Your task to perform on an android device: Search for seafood restaurants on Google Maps Image 0: 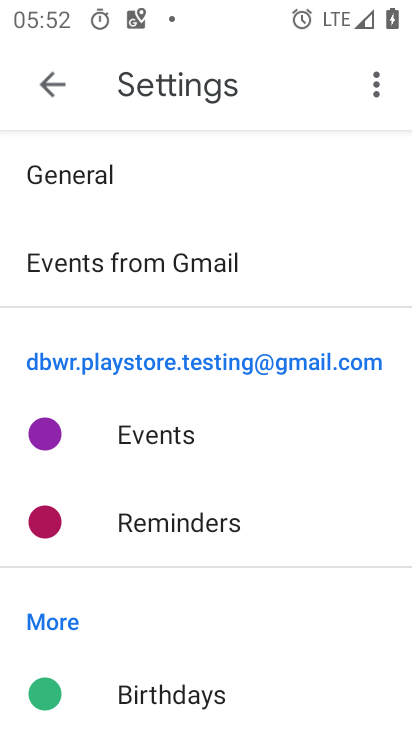
Step 0: press home button
Your task to perform on an android device: Search for seafood restaurants on Google Maps Image 1: 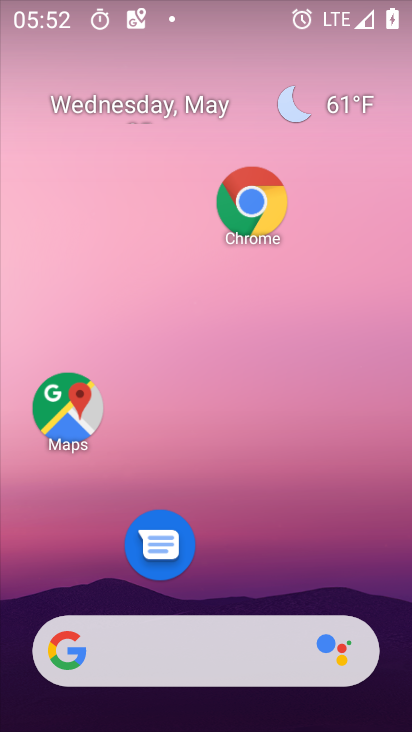
Step 1: click (80, 419)
Your task to perform on an android device: Search for seafood restaurants on Google Maps Image 2: 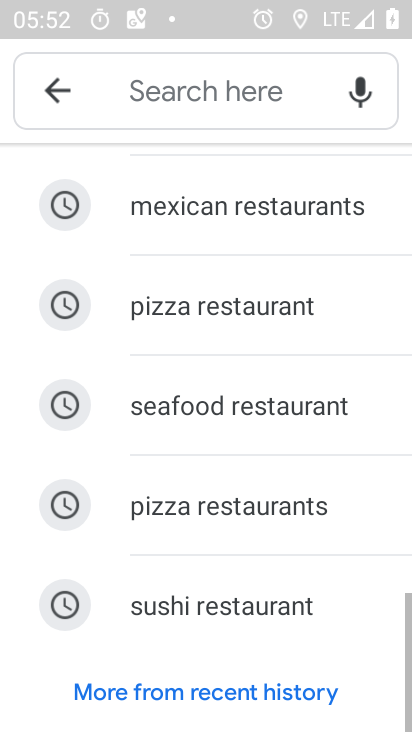
Step 2: click (147, 90)
Your task to perform on an android device: Search for seafood restaurants on Google Maps Image 3: 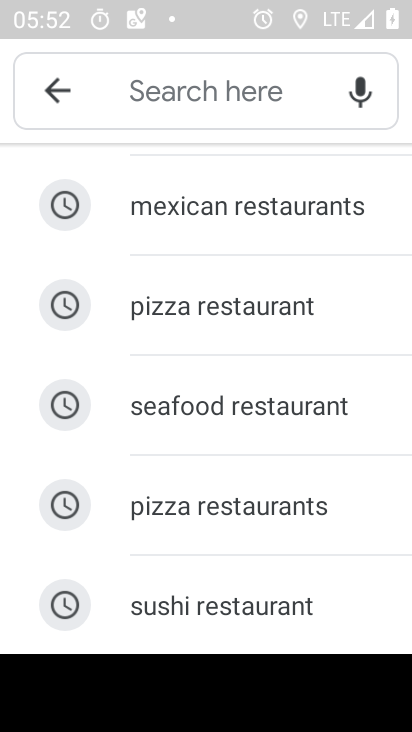
Step 3: type "seafood restaurants"
Your task to perform on an android device: Search for seafood restaurants on Google Maps Image 4: 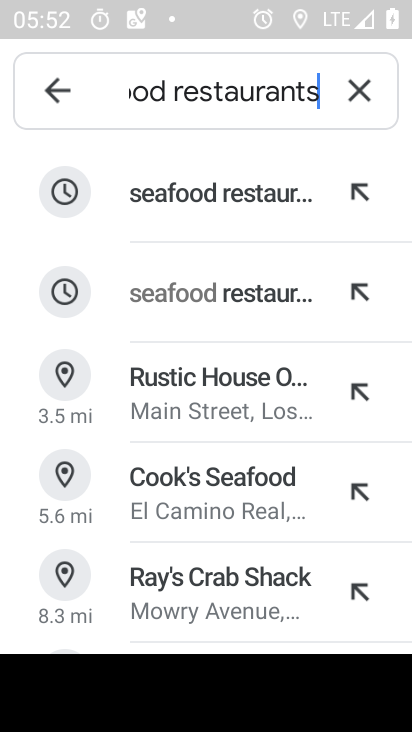
Step 4: click (200, 201)
Your task to perform on an android device: Search for seafood restaurants on Google Maps Image 5: 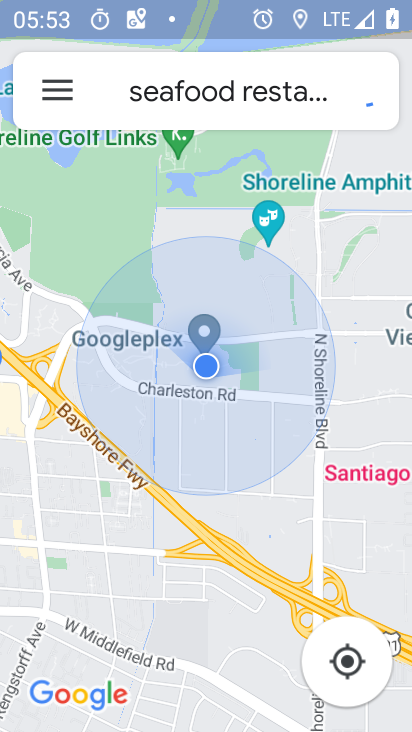
Step 5: task complete